Your task to perform on an android device: Open Google Chrome Image 0: 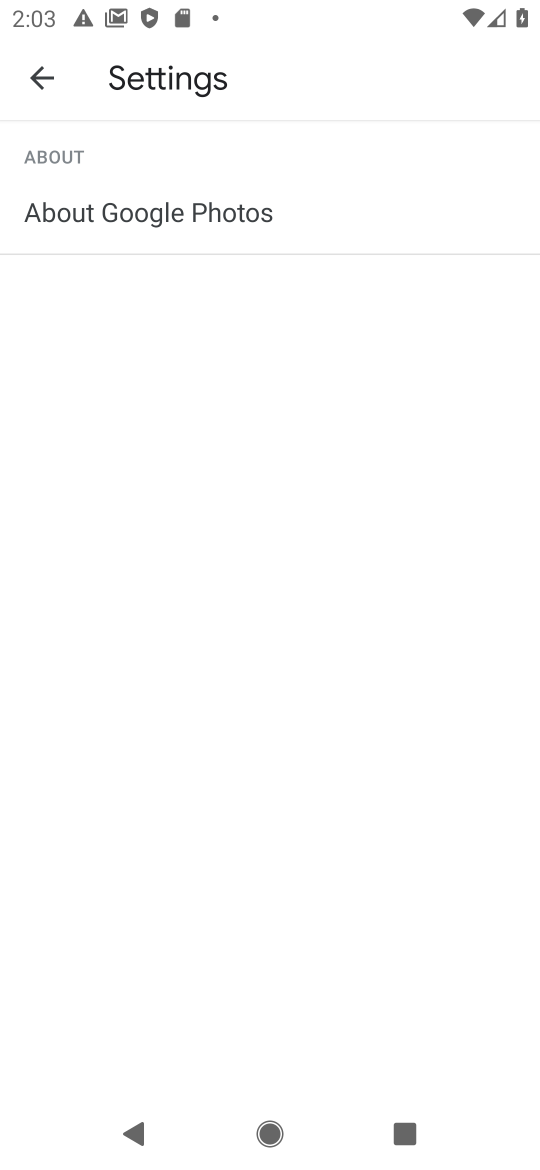
Step 0: press home button
Your task to perform on an android device: Open Google Chrome Image 1: 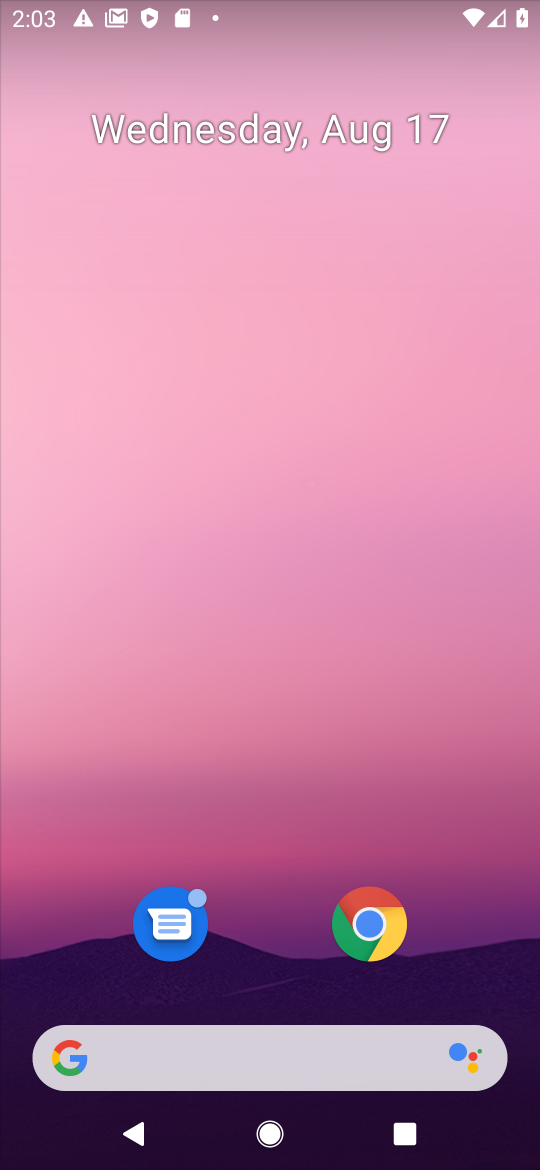
Step 1: click (339, 909)
Your task to perform on an android device: Open Google Chrome Image 2: 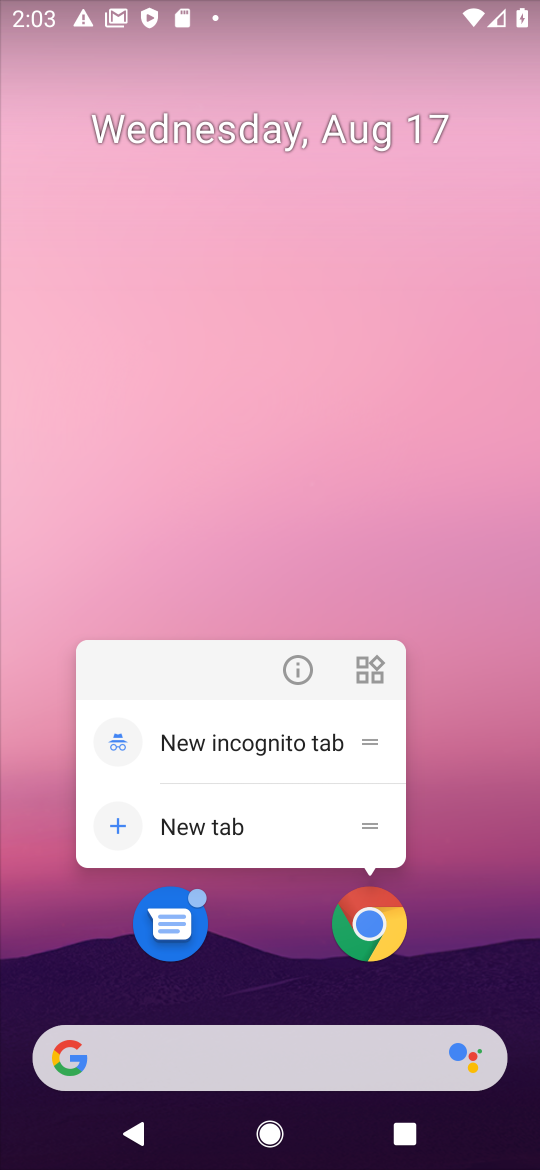
Step 2: click (386, 960)
Your task to perform on an android device: Open Google Chrome Image 3: 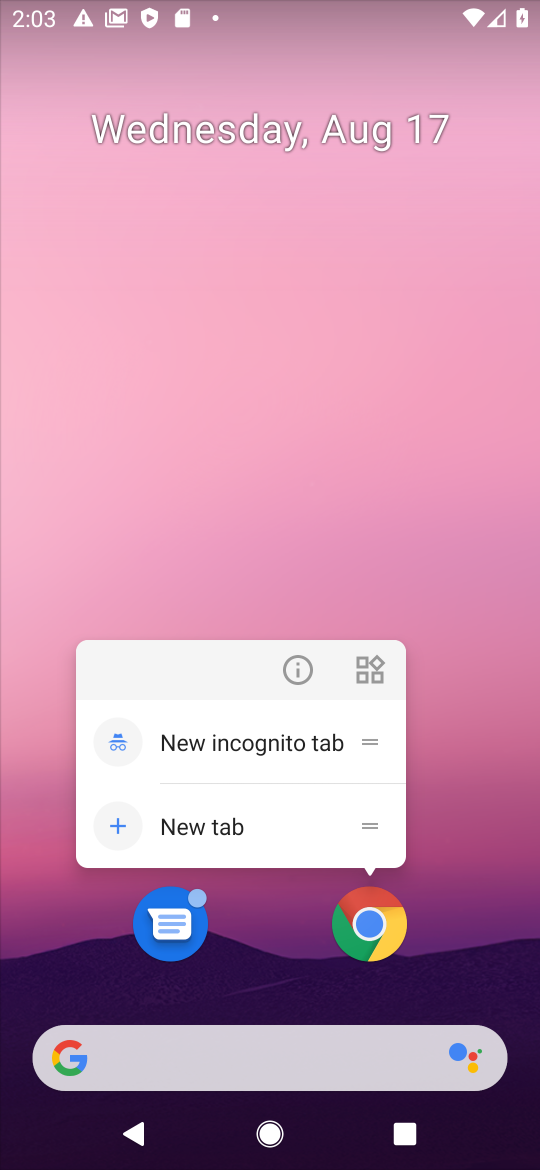
Step 3: click (386, 960)
Your task to perform on an android device: Open Google Chrome Image 4: 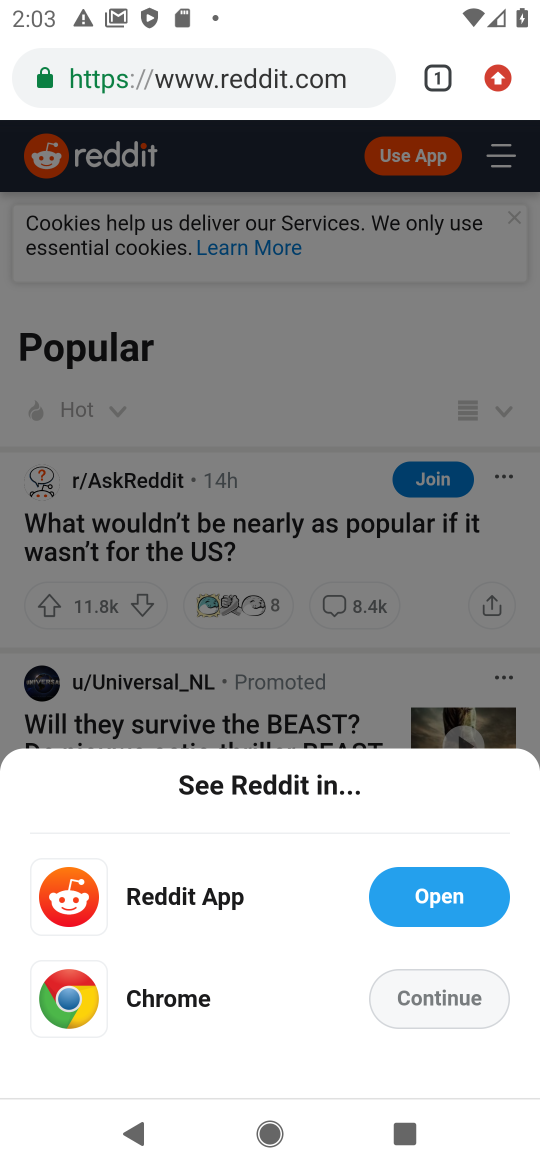
Step 4: click (481, 980)
Your task to perform on an android device: Open Google Chrome Image 5: 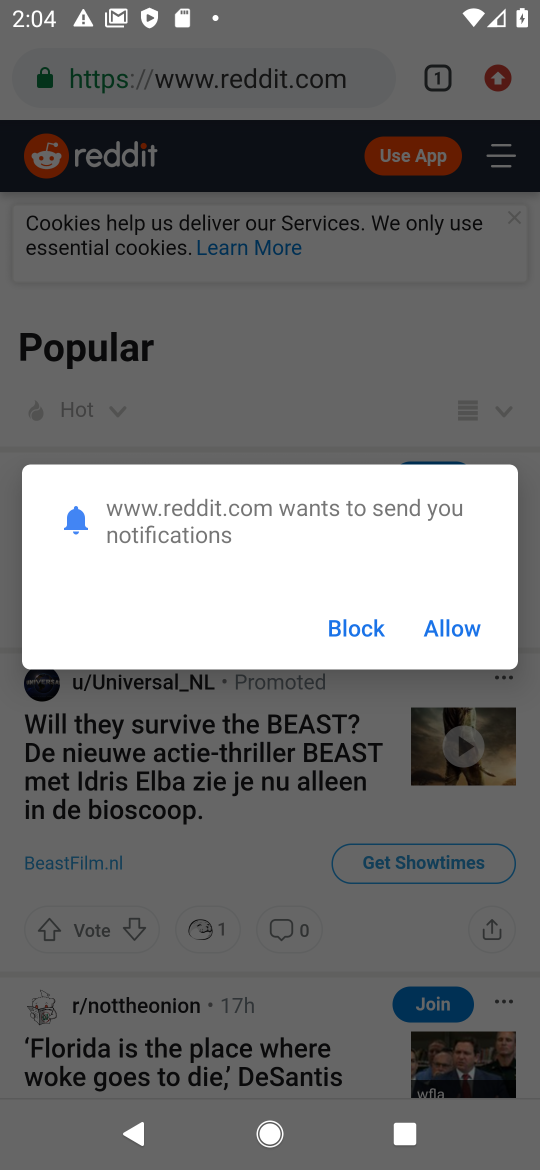
Step 5: click (449, 633)
Your task to perform on an android device: Open Google Chrome Image 6: 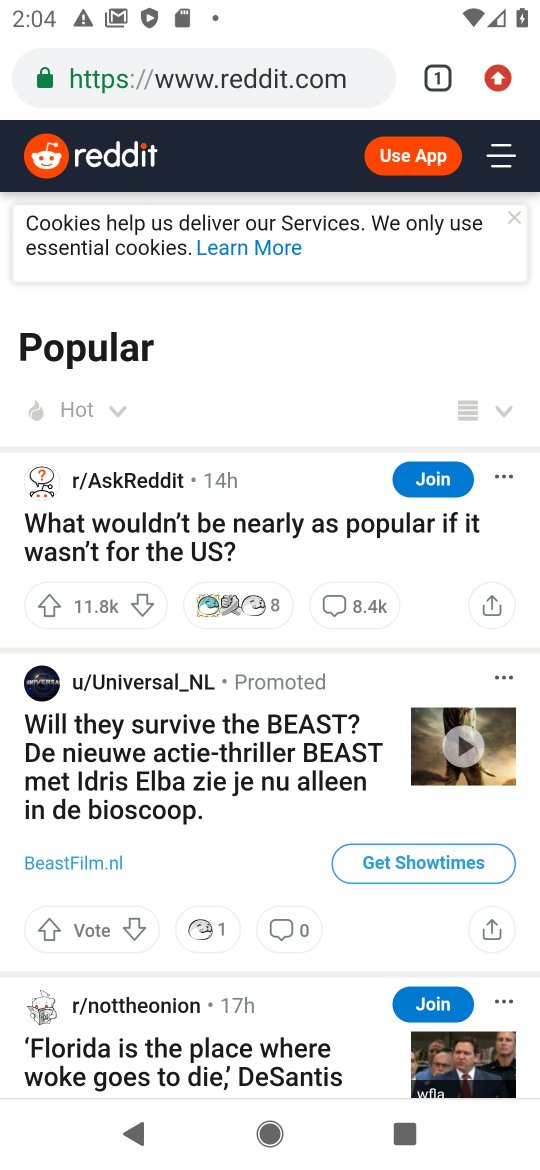
Step 6: task complete